Your task to perform on an android device: Go to Yahoo.com Image 0: 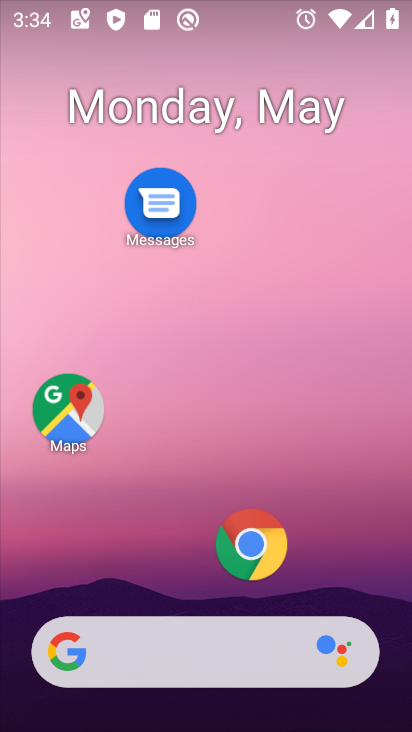
Step 0: click (229, 546)
Your task to perform on an android device: Go to Yahoo.com Image 1: 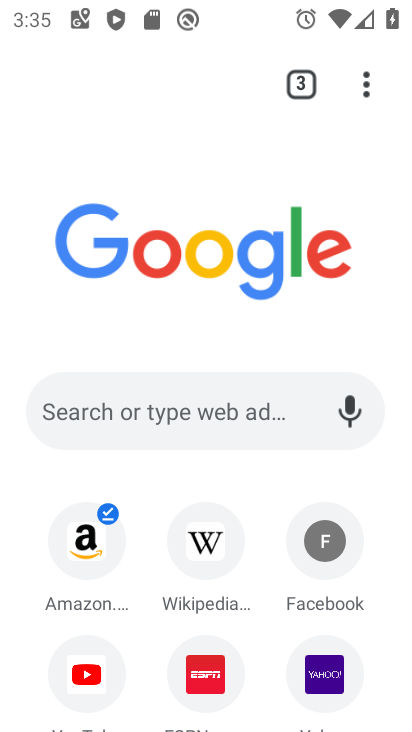
Step 1: click (323, 663)
Your task to perform on an android device: Go to Yahoo.com Image 2: 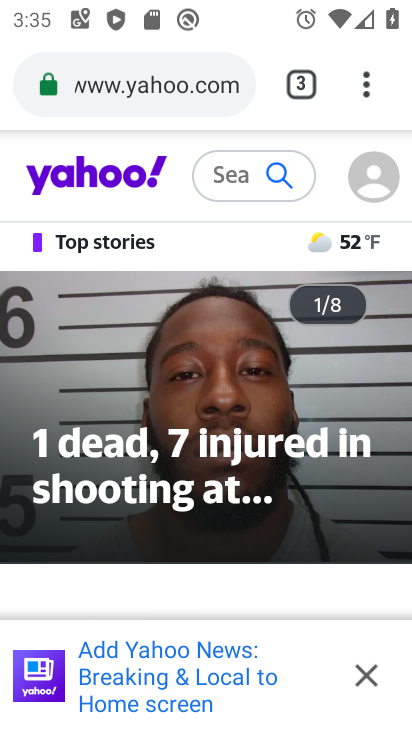
Step 2: task complete